Your task to perform on an android device: delete location history Image 0: 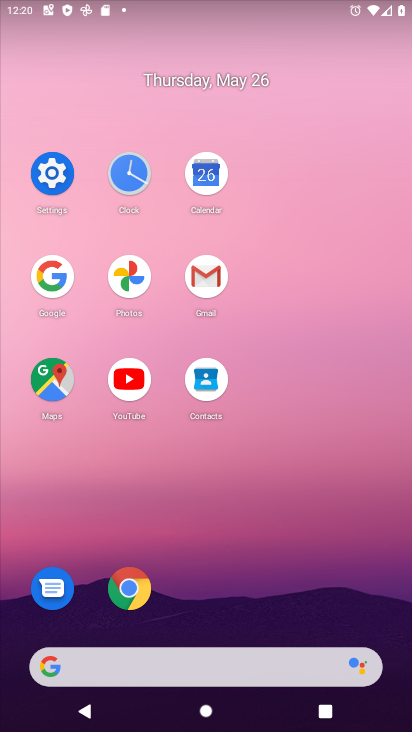
Step 0: click (67, 159)
Your task to perform on an android device: delete location history Image 1: 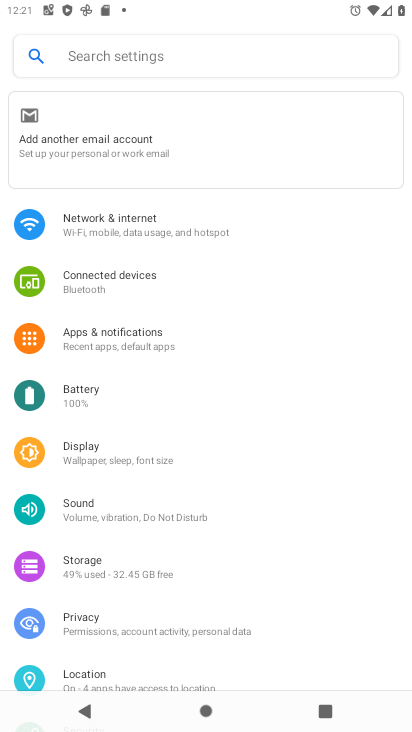
Step 1: click (164, 679)
Your task to perform on an android device: delete location history Image 2: 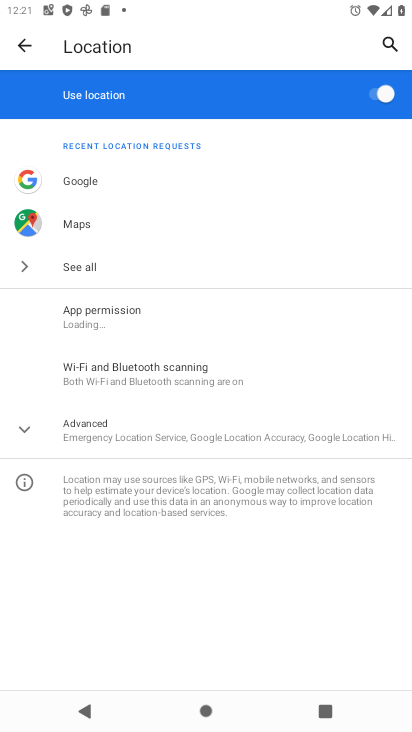
Step 2: click (124, 416)
Your task to perform on an android device: delete location history Image 3: 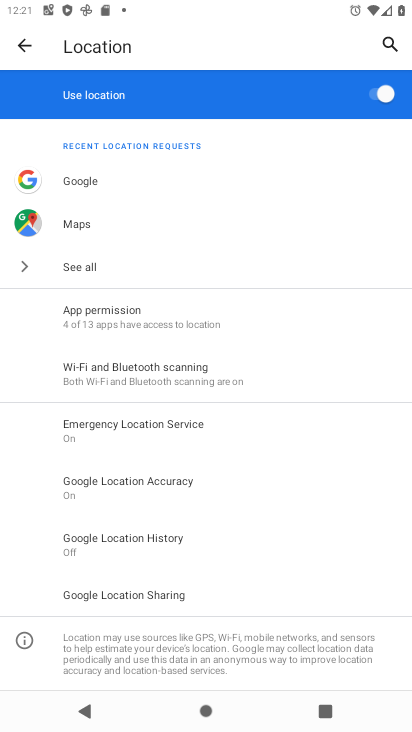
Step 3: click (159, 542)
Your task to perform on an android device: delete location history Image 4: 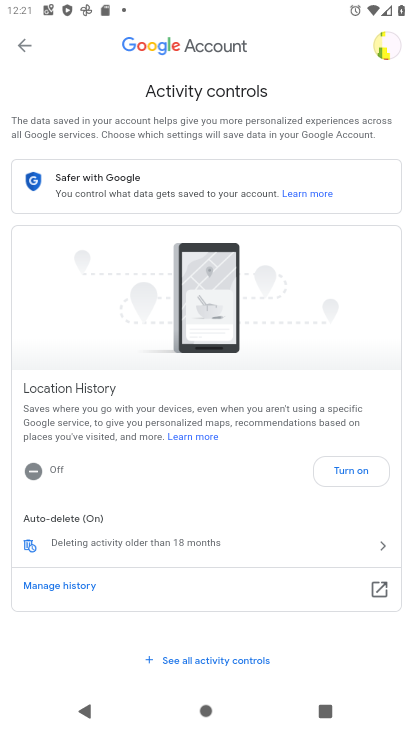
Step 4: drag from (180, 568) to (211, 196)
Your task to perform on an android device: delete location history Image 5: 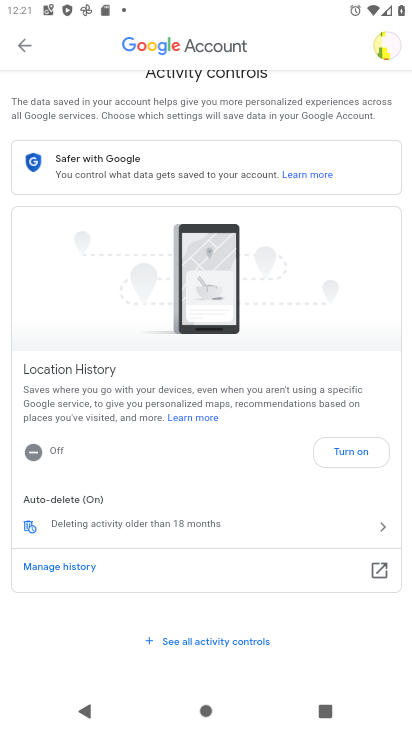
Step 5: click (303, 524)
Your task to perform on an android device: delete location history Image 6: 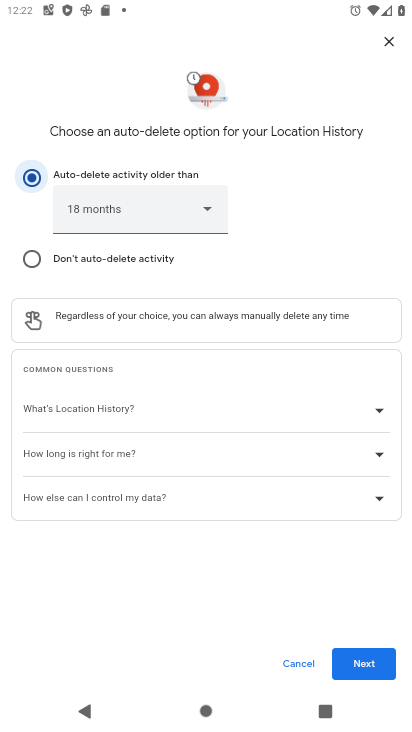
Step 6: click (372, 673)
Your task to perform on an android device: delete location history Image 7: 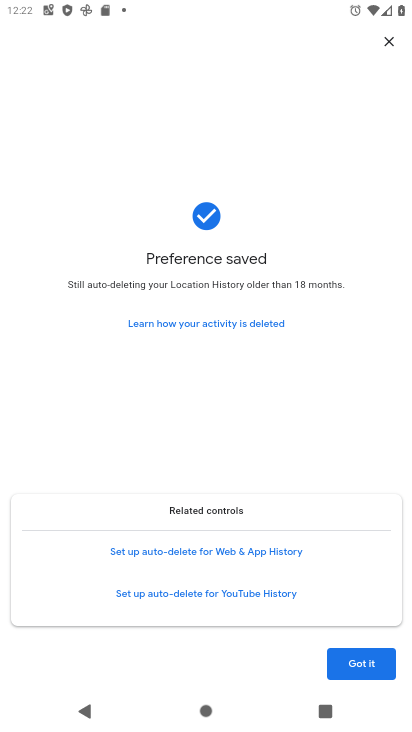
Step 7: click (333, 661)
Your task to perform on an android device: delete location history Image 8: 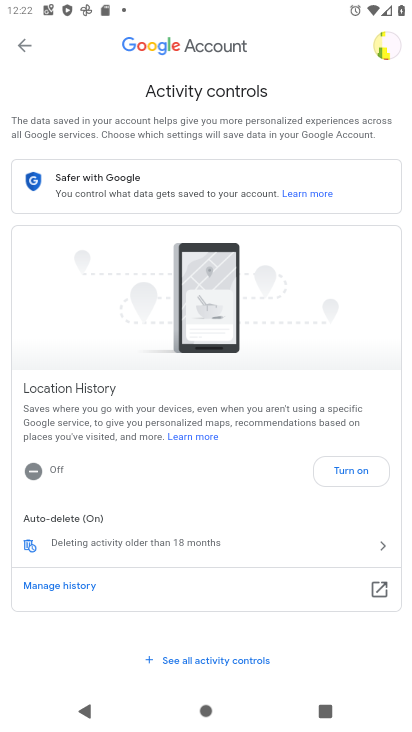
Step 8: task complete